Your task to perform on an android device: turn on improve location accuracy Image 0: 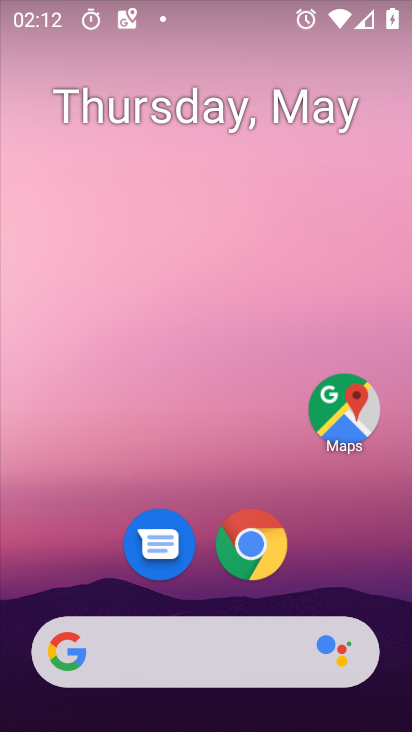
Step 0: drag from (377, 579) to (384, 185)
Your task to perform on an android device: turn on improve location accuracy Image 1: 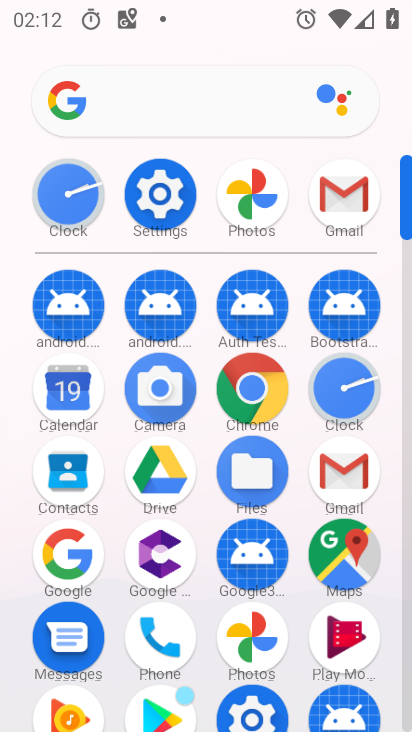
Step 1: click (172, 201)
Your task to perform on an android device: turn on improve location accuracy Image 2: 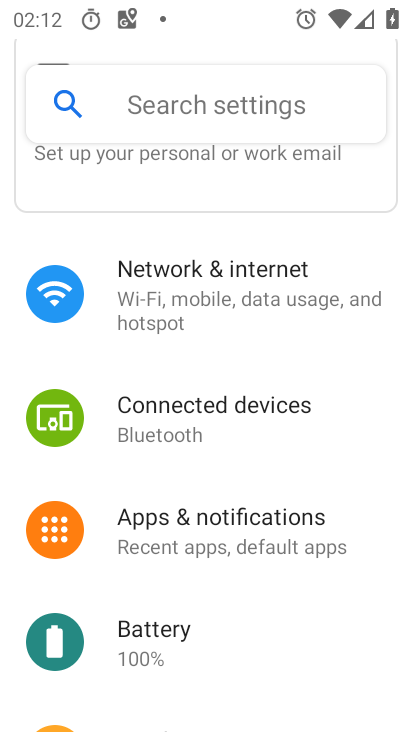
Step 2: drag from (350, 535) to (357, 426)
Your task to perform on an android device: turn on improve location accuracy Image 3: 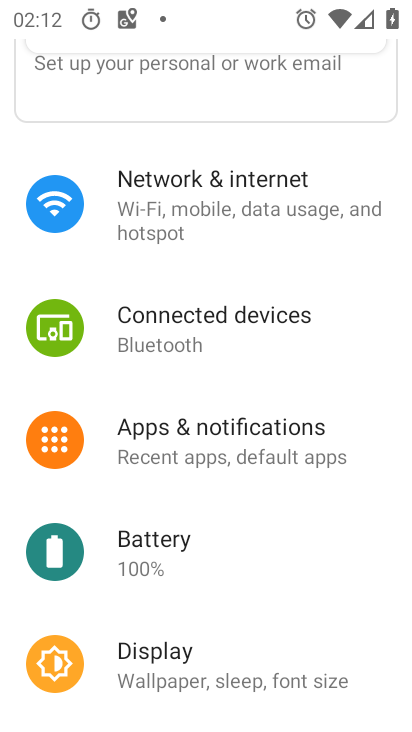
Step 3: drag from (353, 585) to (361, 476)
Your task to perform on an android device: turn on improve location accuracy Image 4: 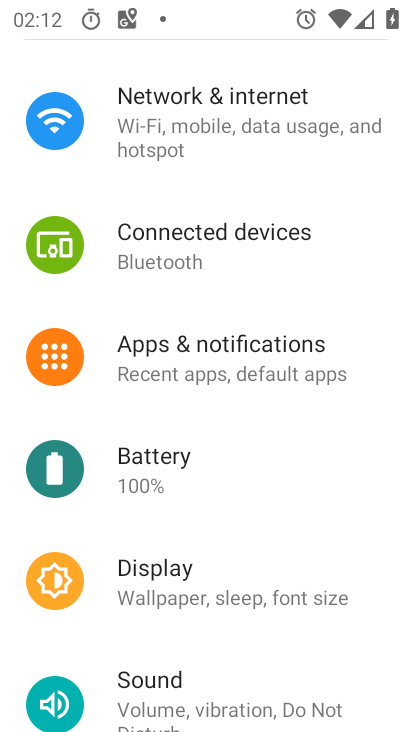
Step 4: drag from (358, 654) to (361, 544)
Your task to perform on an android device: turn on improve location accuracy Image 5: 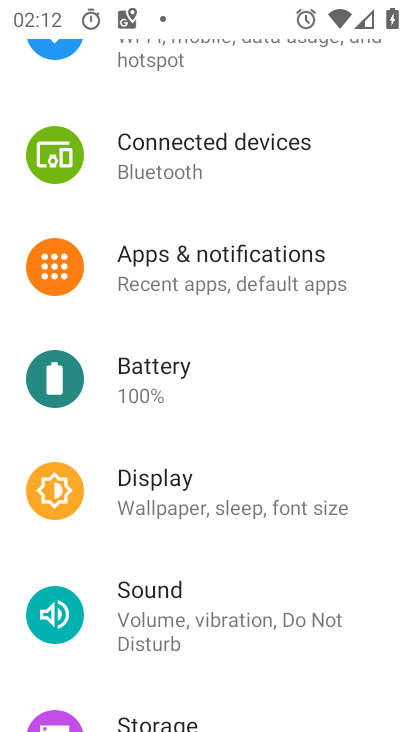
Step 5: drag from (351, 659) to (360, 564)
Your task to perform on an android device: turn on improve location accuracy Image 6: 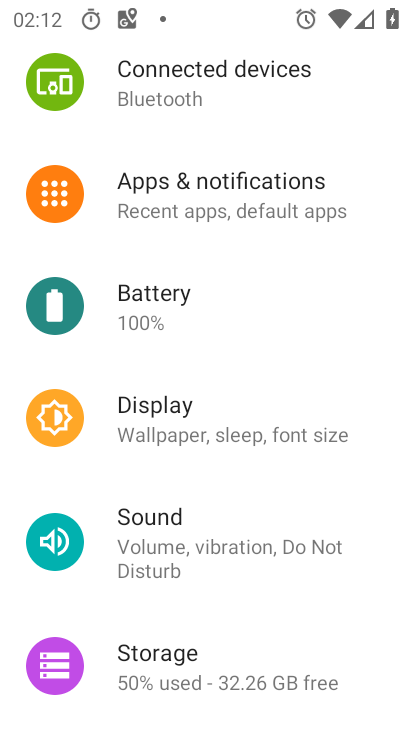
Step 6: drag from (368, 676) to (371, 575)
Your task to perform on an android device: turn on improve location accuracy Image 7: 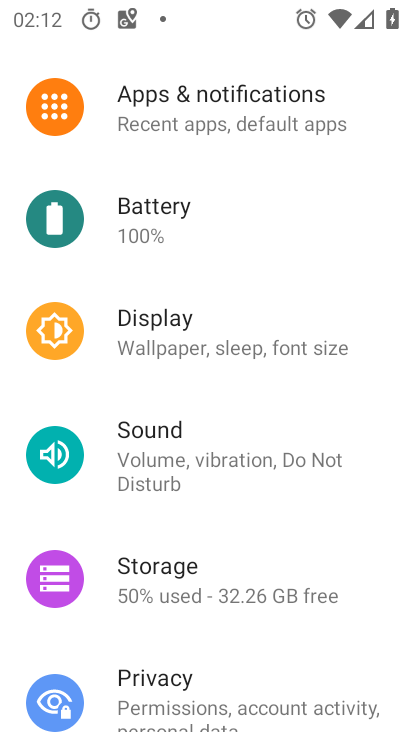
Step 7: drag from (369, 691) to (373, 561)
Your task to perform on an android device: turn on improve location accuracy Image 8: 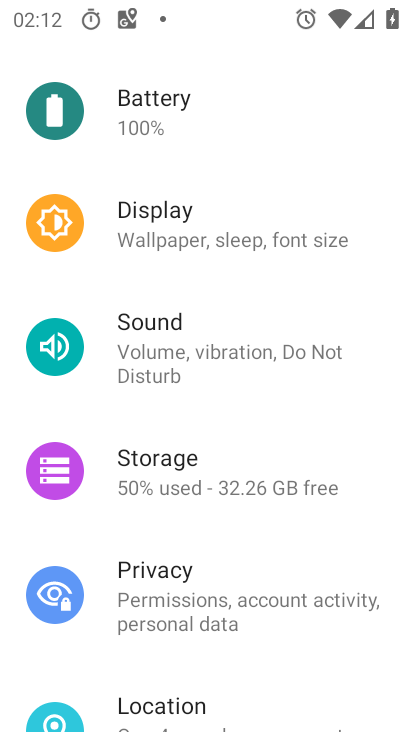
Step 8: drag from (356, 683) to (359, 582)
Your task to perform on an android device: turn on improve location accuracy Image 9: 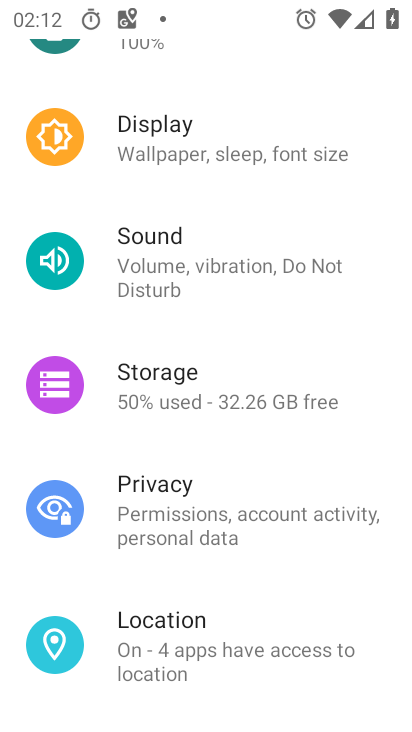
Step 9: drag from (358, 695) to (362, 572)
Your task to perform on an android device: turn on improve location accuracy Image 10: 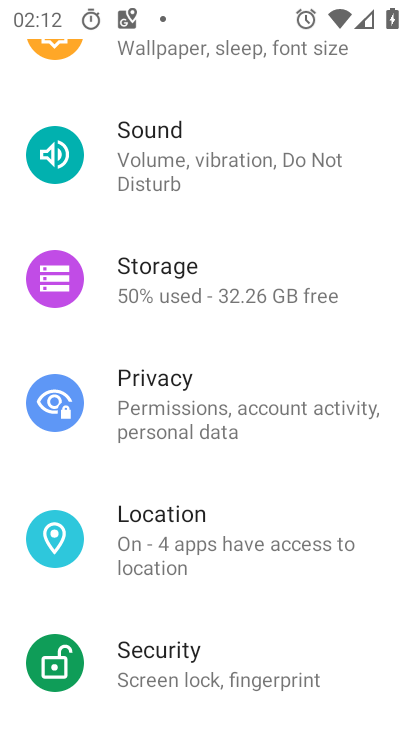
Step 10: click (306, 548)
Your task to perform on an android device: turn on improve location accuracy Image 11: 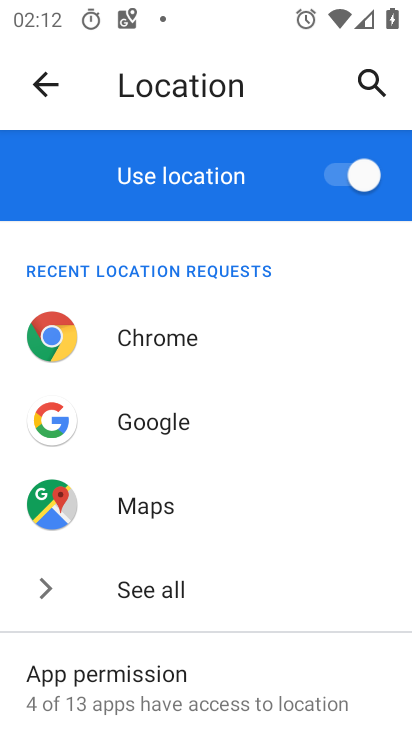
Step 11: drag from (298, 617) to (299, 445)
Your task to perform on an android device: turn on improve location accuracy Image 12: 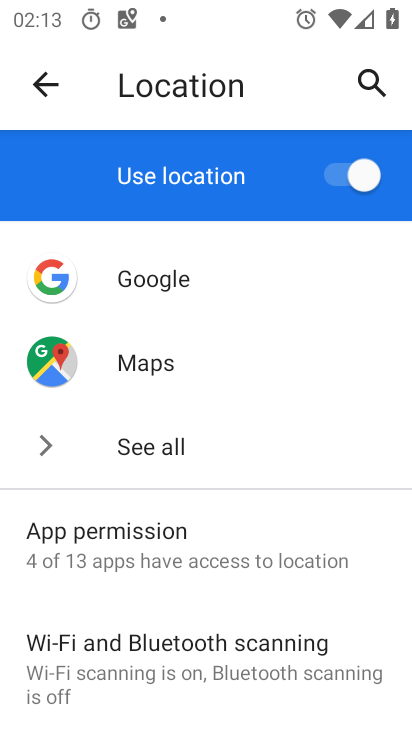
Step 12: drag from (316, 630) to (316, 485)
Your task to perform on an android device: turn on improve location accuracy Image 13: 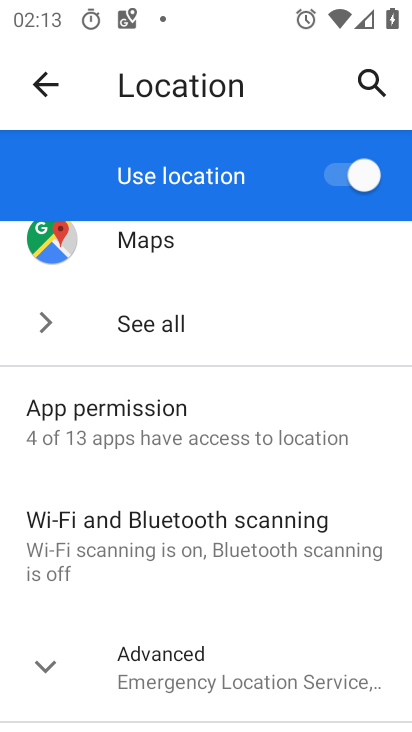
Step 13: click (271, 681)
Your task to perform on an android device: turn on improve location accuracy Image 14: 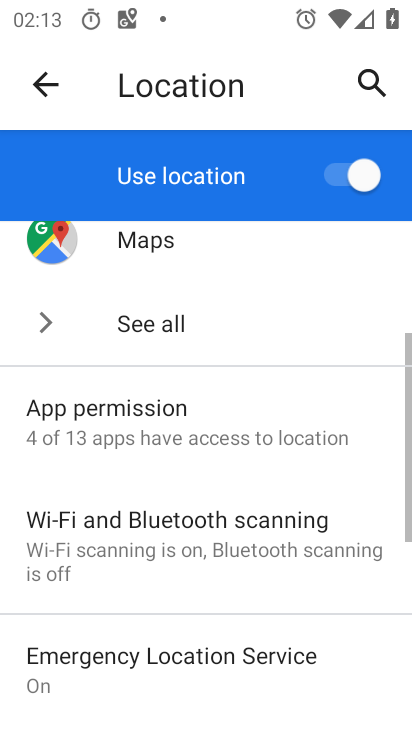
Step 14: drag from (305, 646) to (321, 508)
Your task to perform on an android device: turn on improve location accuracy Image 15: 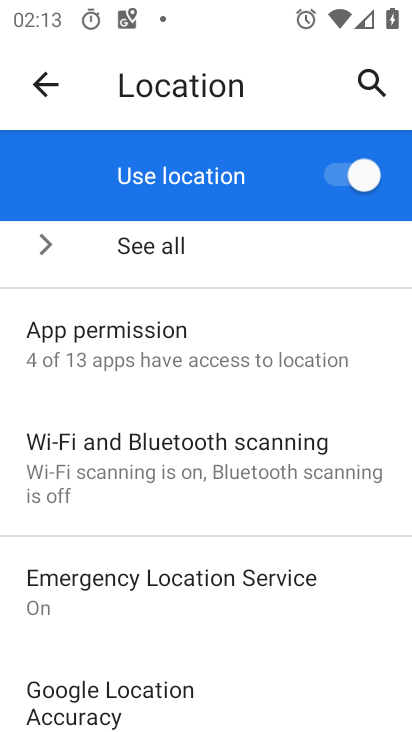
Step 15: drag from (321, 666) to (342, 534)
Your task to perform on an android device: turn on improve location accuracy Image 16: 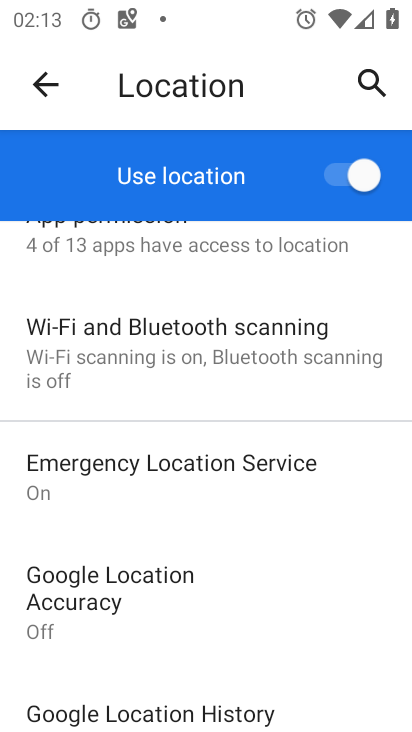
Step 16: drag from (321, 686) to (323, 499)
Your task to perform on an android device: turn on improve location accuracy Image 17: 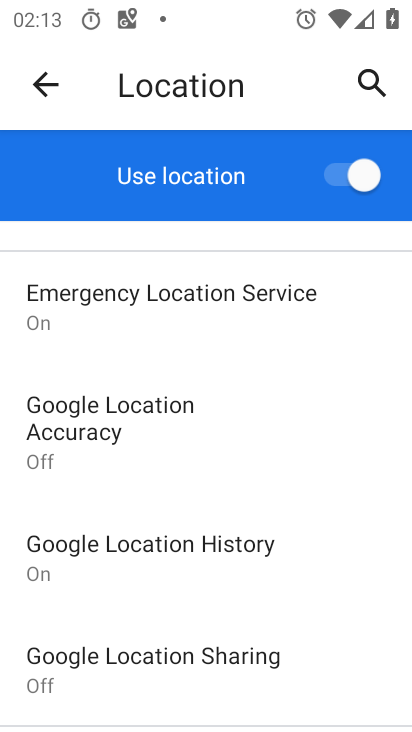
Step 17: drag from (325, 691) to (334, 547)
Your task to perform on an android device: turn on improve location accuracy Image 18: 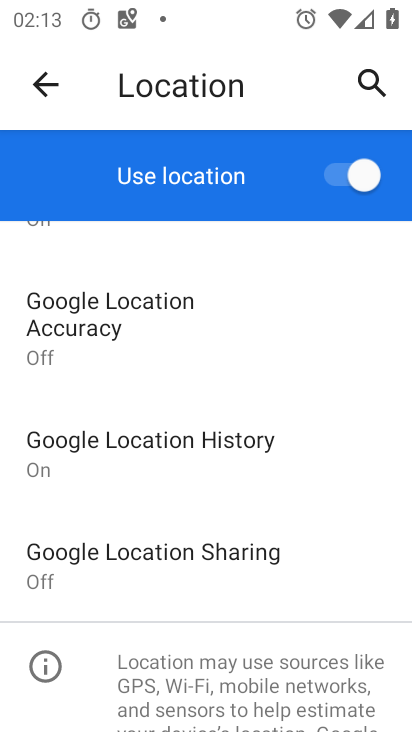
Step 18: drag from (330, 413) to (326, 532)
Your task to perform on an android device: turn on improve location accuracy Image 19: 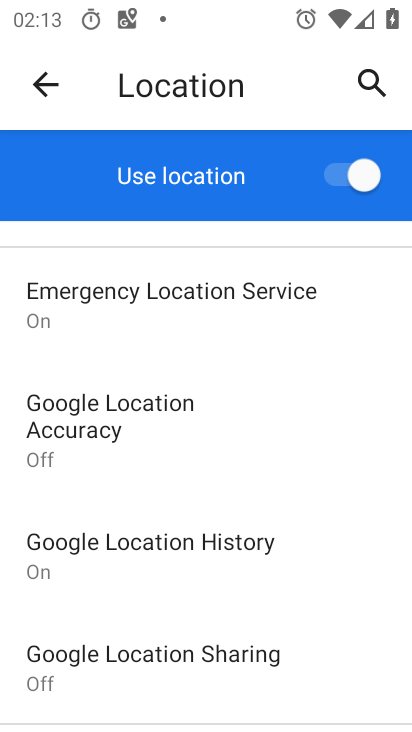
Step 19: click (90, 433)
Your task to perform on an android device: turn on improve location accuracy Image 20: 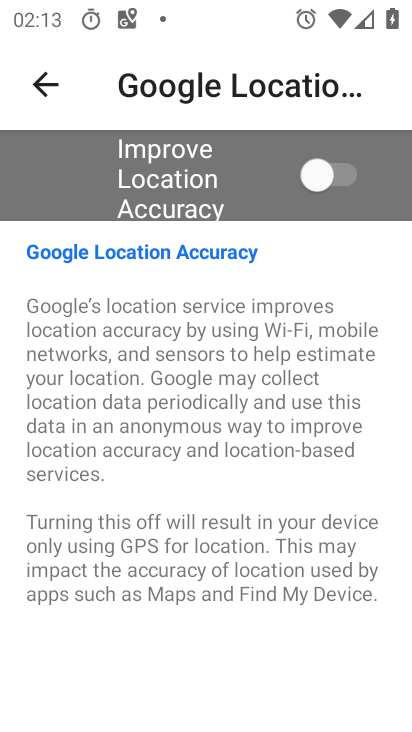
Step 20: click (312, 174)
Your task to perform on an android device: turn on improve location accuracy Image 21: 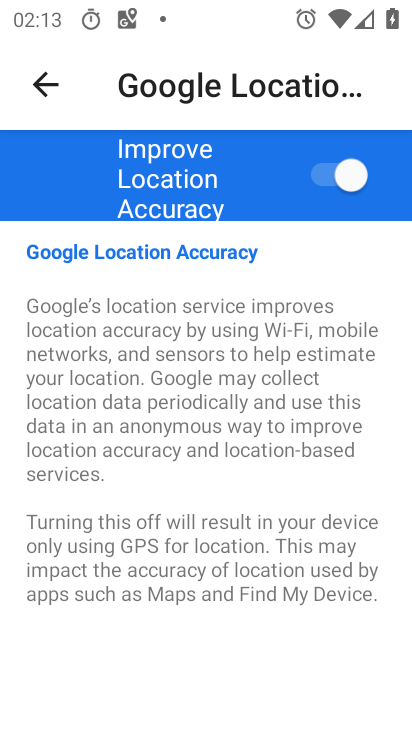
Step 21: task complete